Your task to perform on an android device: Open the phone app and click the voicemail tab. Image 0: 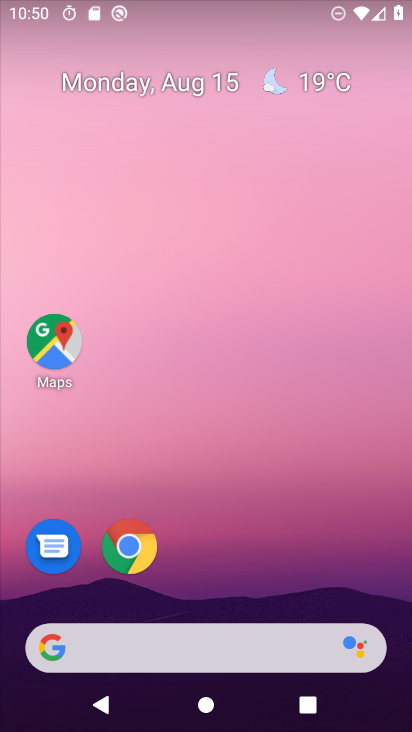
Step 0: drag from (227, 610) to (212, 36)
Your task to perform on an android device: Open the phone app and click the voicemail tab. Image 1: 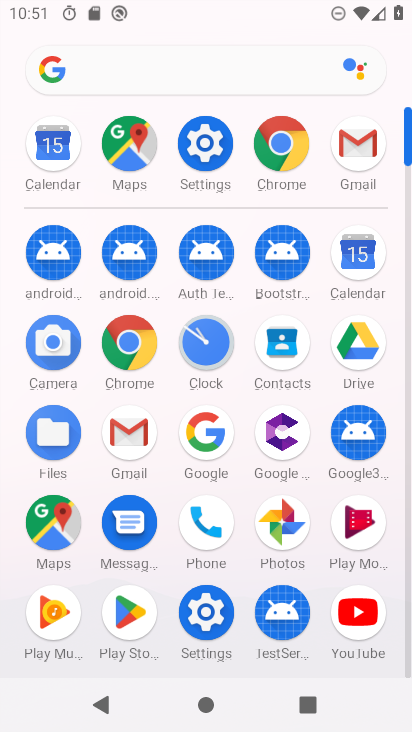
Step 1: click (201, 519)
Your task to perform on an android device: Open the phone app and click the voicemail tab. Image 2: 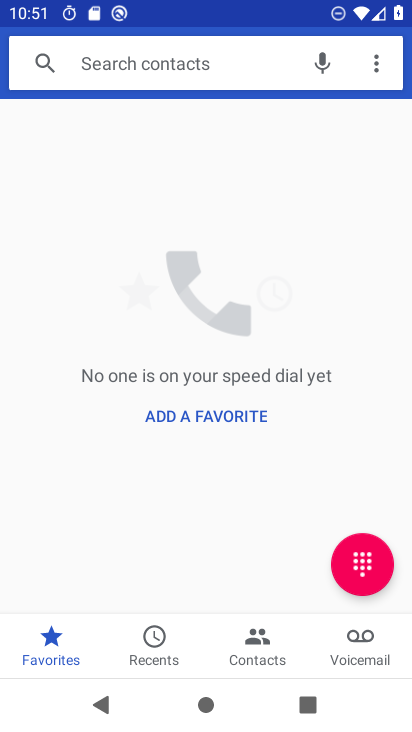
Step 2: click (356, 639)
Your task to perform on an android device: Open the phone app and click the voicemail tab. Image 3: 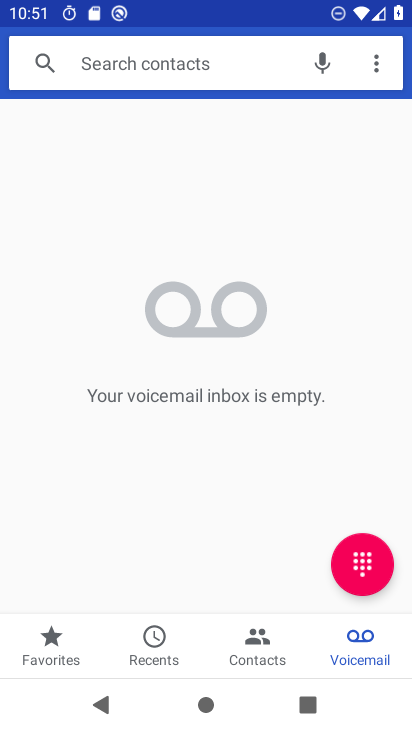
Step 3: task complete